Your task to perform on an android device: Go to accessibility settings Image 0: 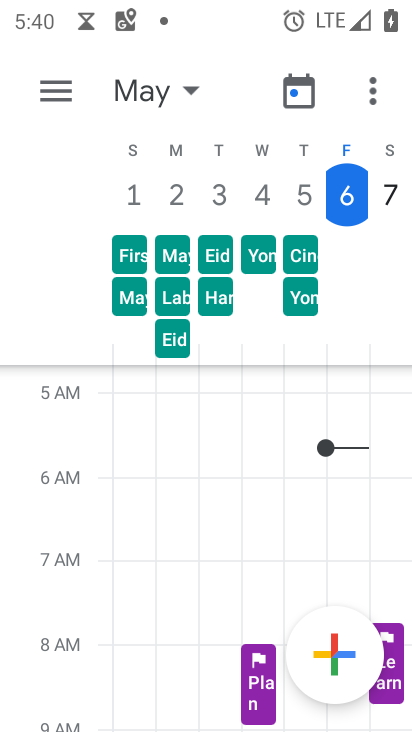
Step 0: press home button
Your task to perform on an android device: Go to accessibility settings Image 1: 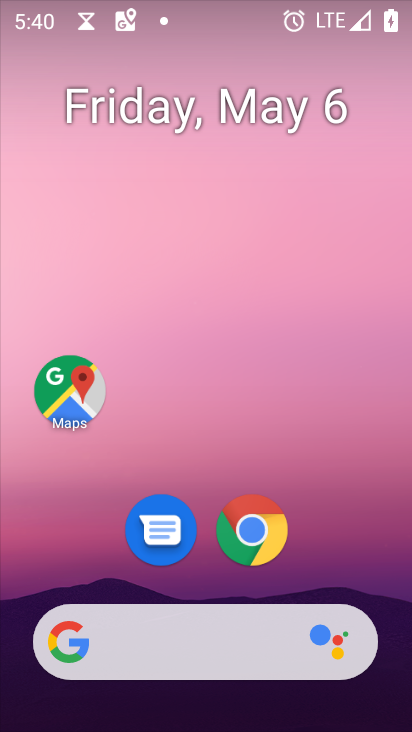
Step 1: drag from (326, 542) to (214, 48)
Your task to perform on an android device: Go to accessibility settings Image 2: 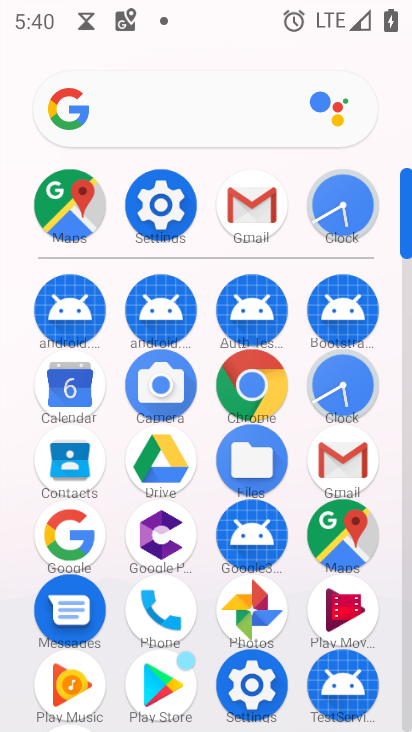
Step 2: click (163, 207)
Your task to perform on an android device: Go to accessibility settings Image 3: 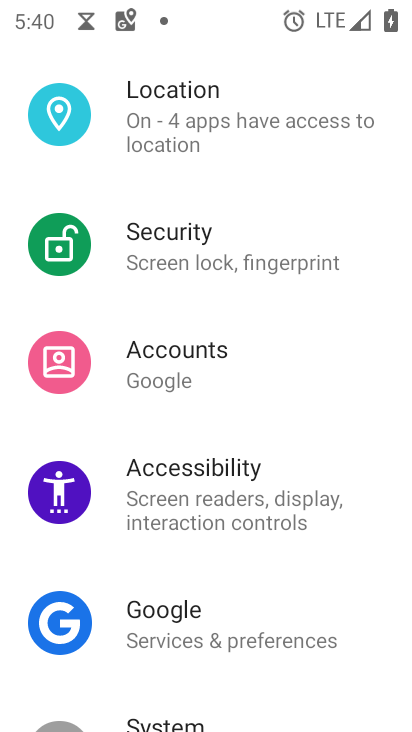
Step 3: click (196, 480)
Your task to perform on an android device: Go to accessibility settings Image 4: 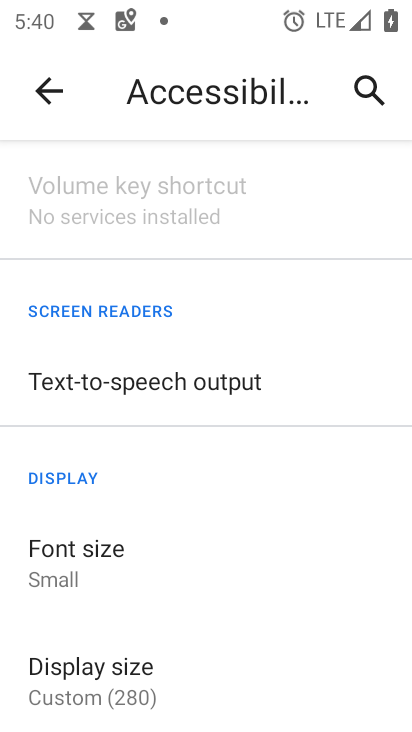
Step 4: task complete